Your task to perform on an android device: open wifi settings Image 0: 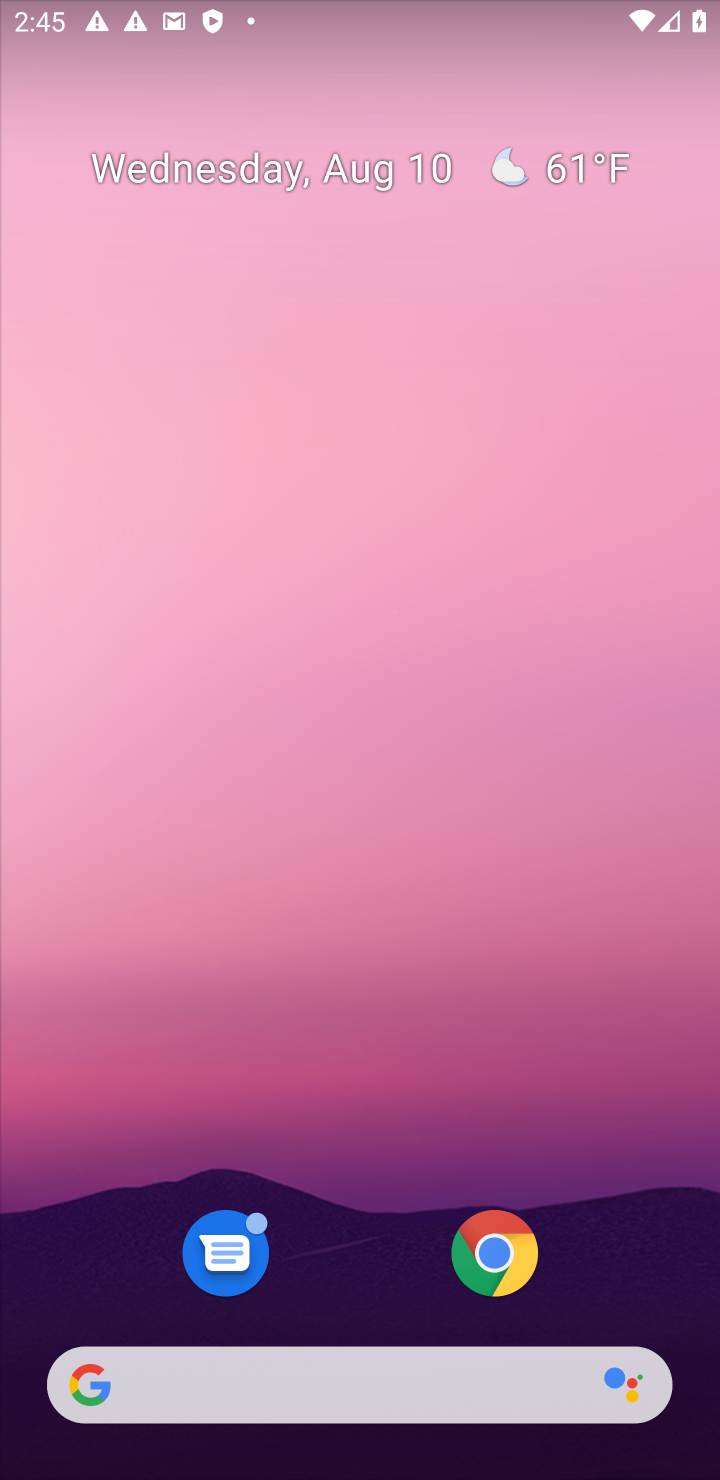
Step 0: drag from (511, 1053) to (534, 354)
Your task to perform on an android device: open wifi settings Image 1: 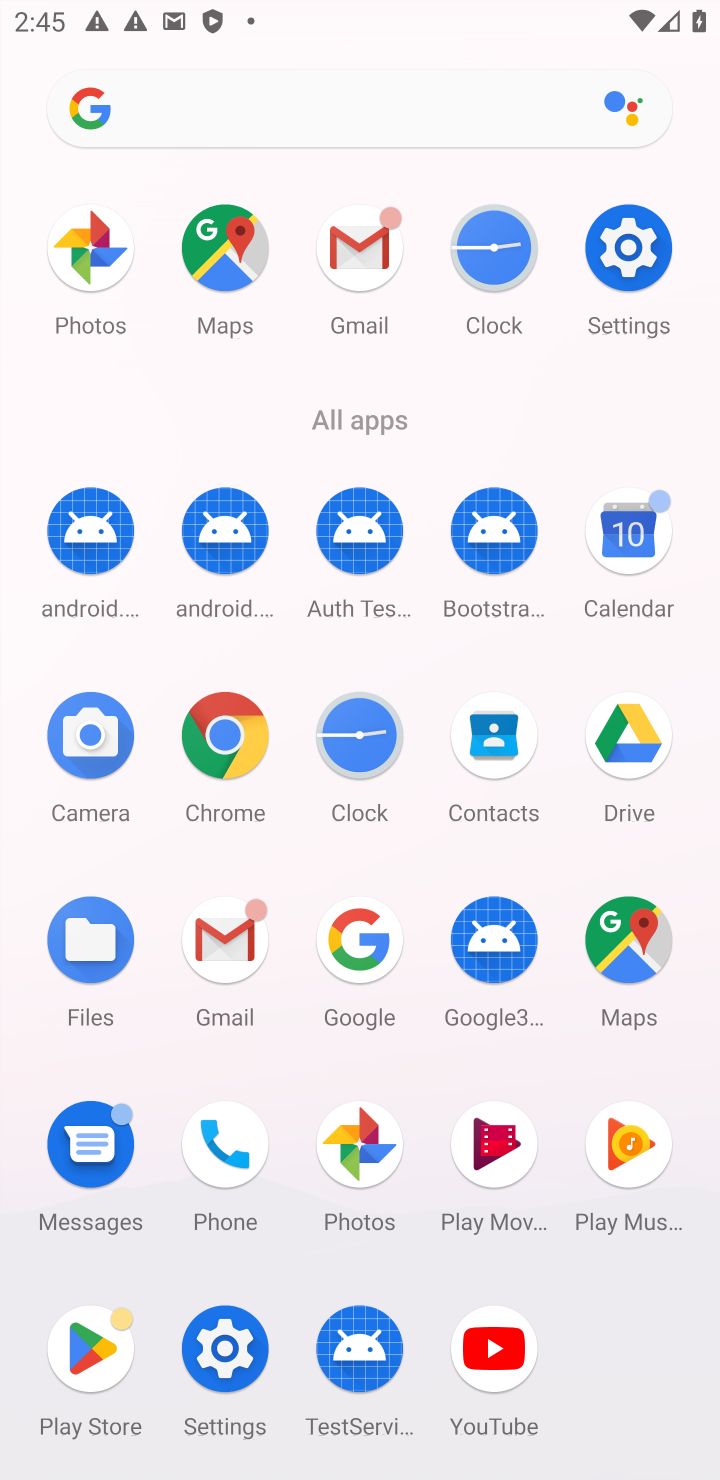
Step 1: click (622, 253)
Your task to perform on an android device: open wifi settings Image 2: 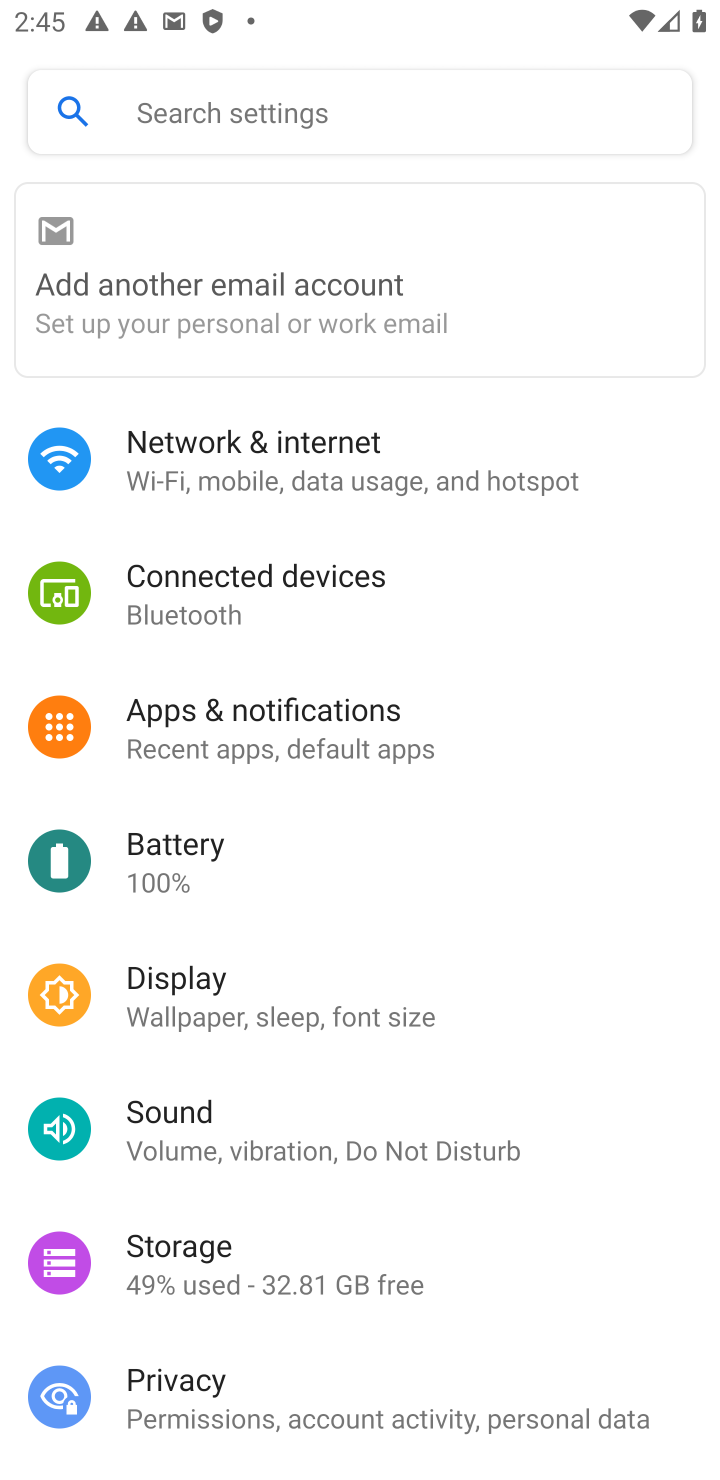
Step 2: click (462, 470)
Your task to perform on an android device: open wifi settings Image 3: 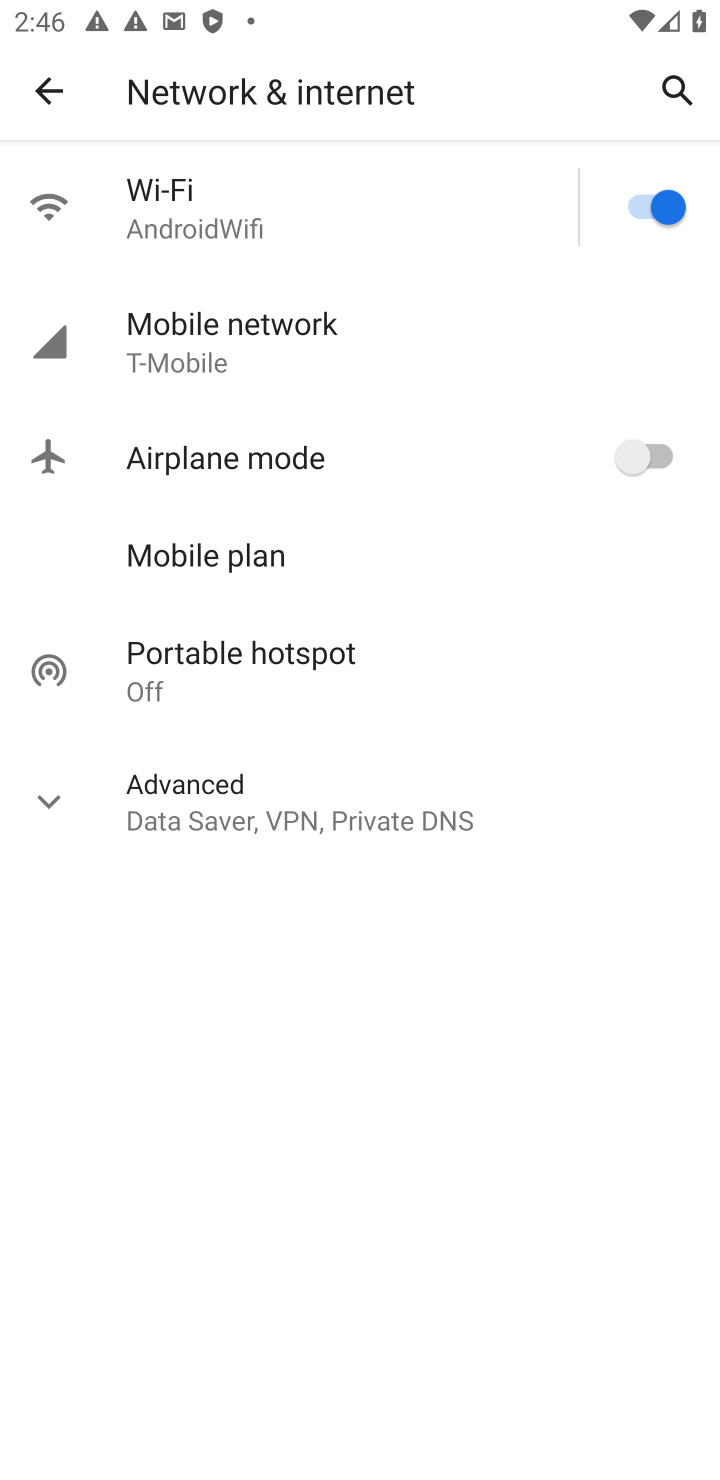
Step 3: task complete